Your task to perform on an android device: search for console tables on article.com Image 0: 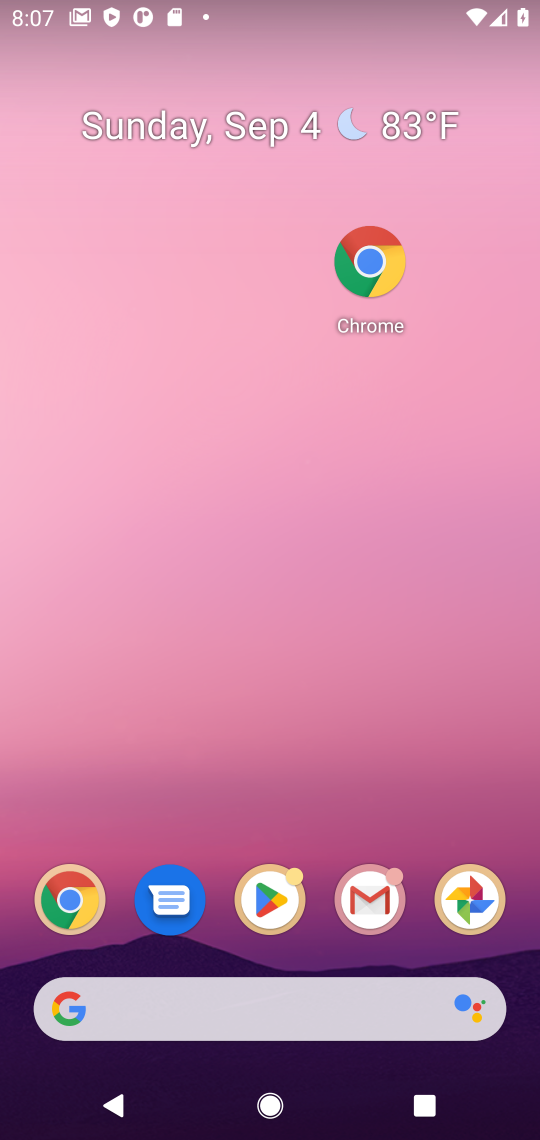
Step 0: drag from (264, 962) to (153, 216)
Your task to perform on an android device: search for console tables on article.com Image 1: 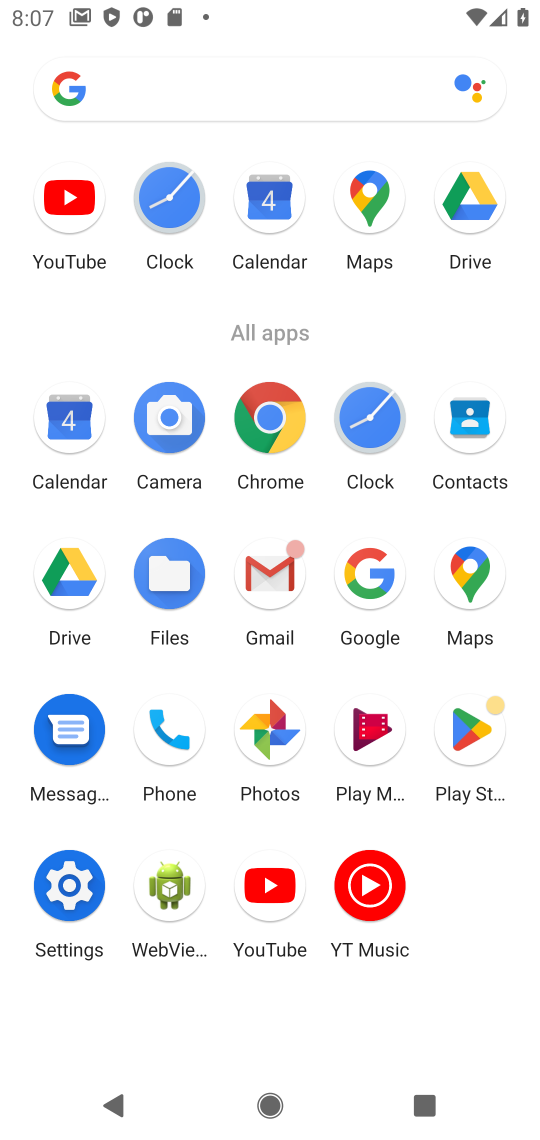
Step 1: click (275, 390)
Your task to perform on an android device: search for console tables on article.com Image 2: 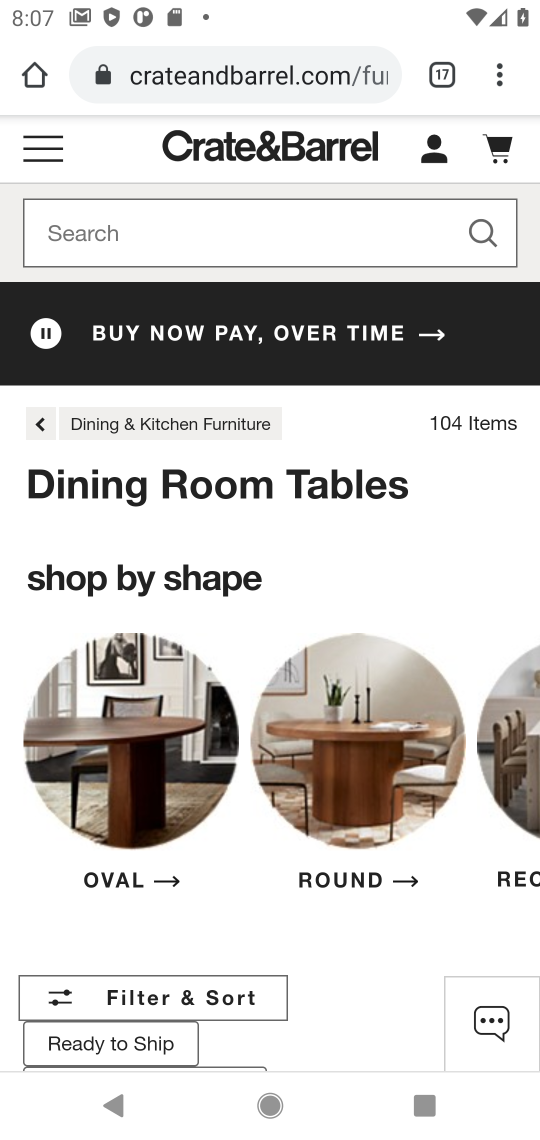
Step 2: click (432, 68)
Your task to perform on an android device: search for console tables on article.com Image 3: 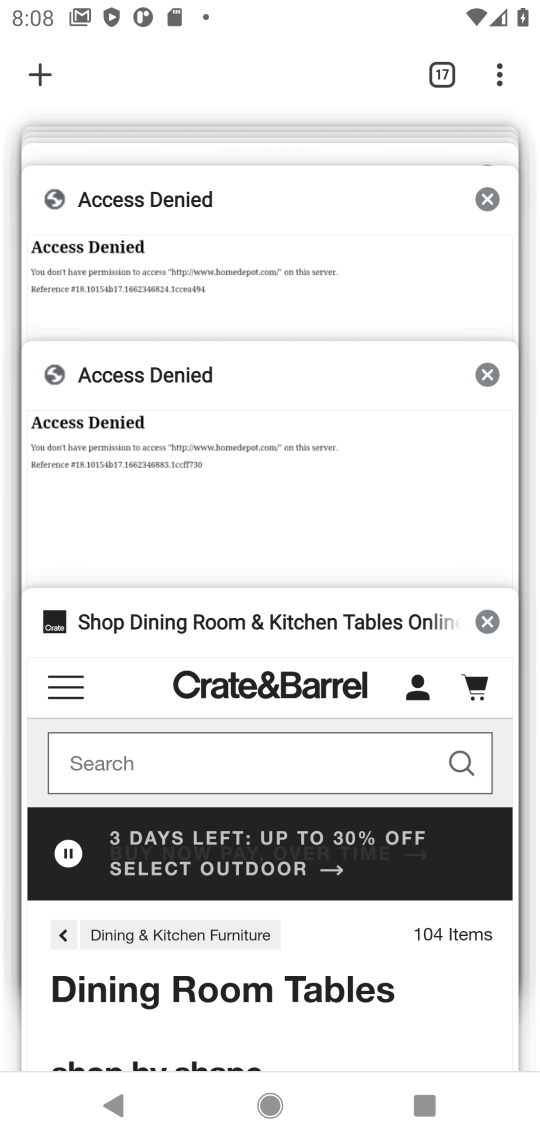
Step 3: click (36, 84)
Your task to perform on an android device: search for console tables on article.com Image 4: 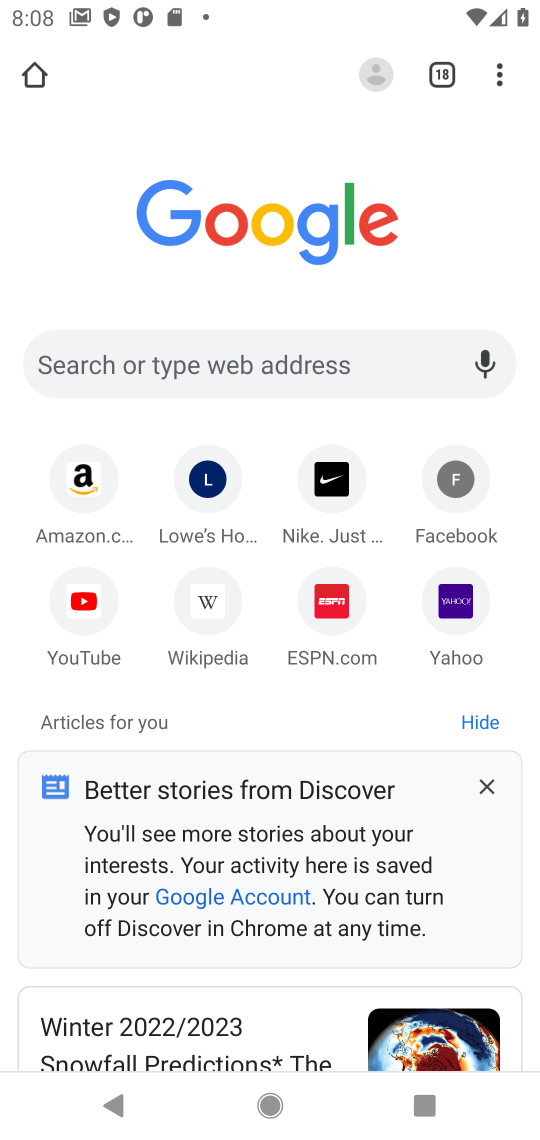
Step 4: click (191, 377)
Your task to perform on an android device: search for console tables on article.com Image 5: 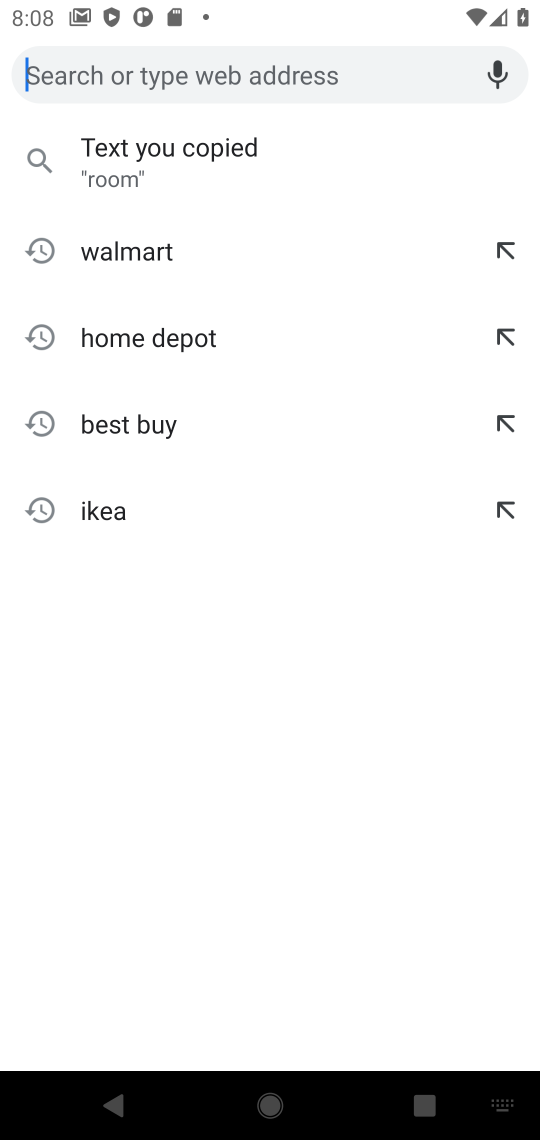
Step 5: type "article.com"
Your task to perform on an android device: search for console tables on article.com Image 6: 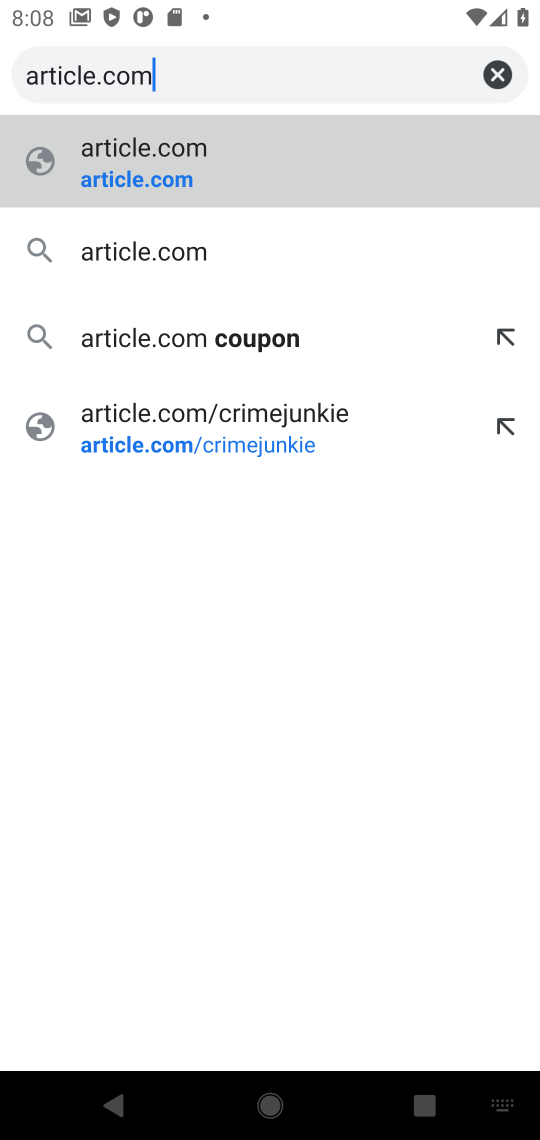
Step 6: click (134, 194)
Your task to perform on an android device: search for console tables on article.com Image 7: 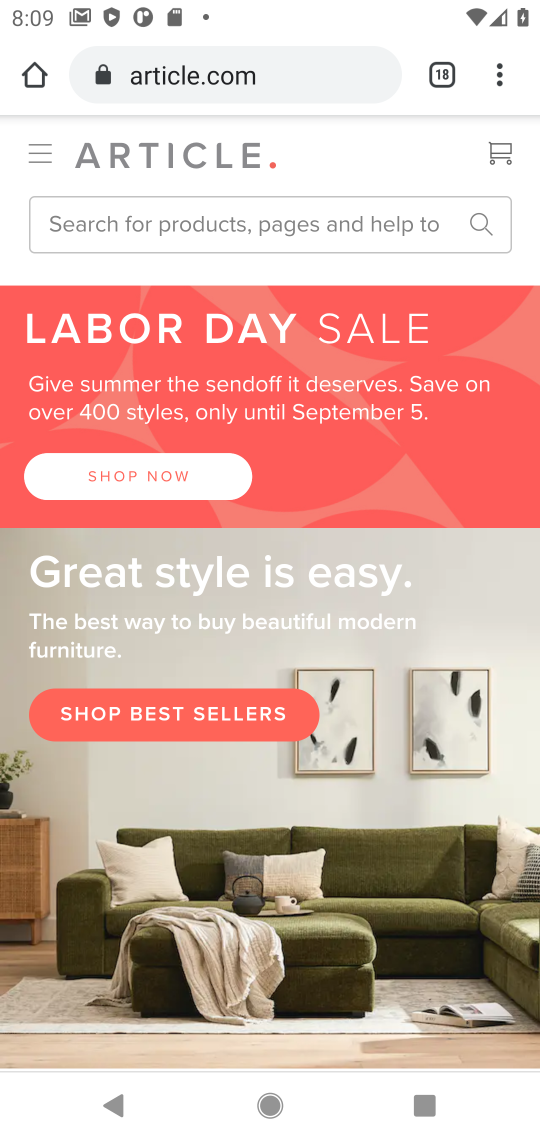
Step 7: click (147, 206)
Your task to perform on an android device: search for console tables on article.com Image 8: 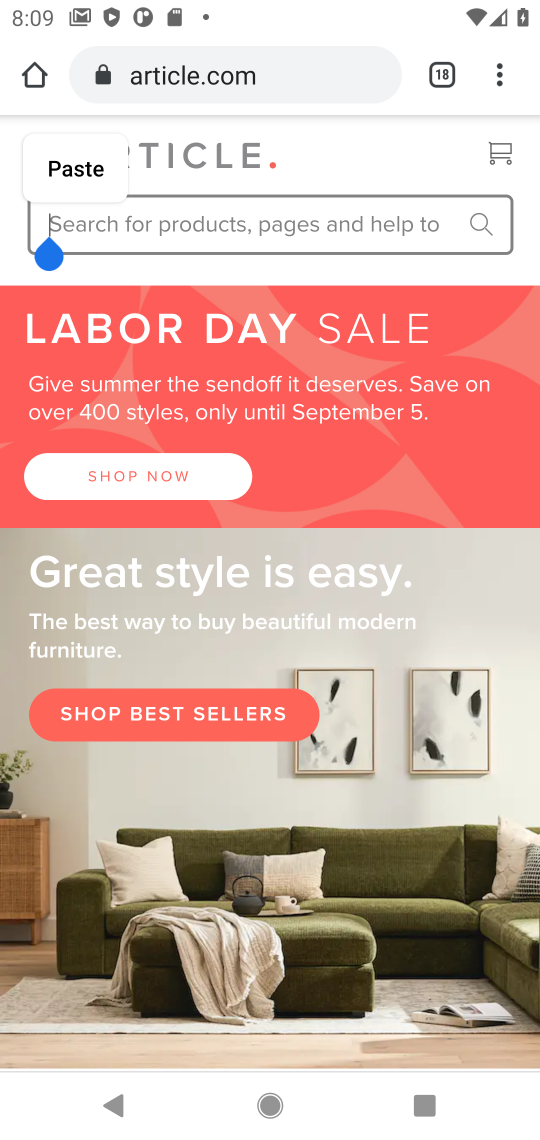
Step 8: type "console tables"
Your task to perform on an android device: search for console tables on article.com Image 9: 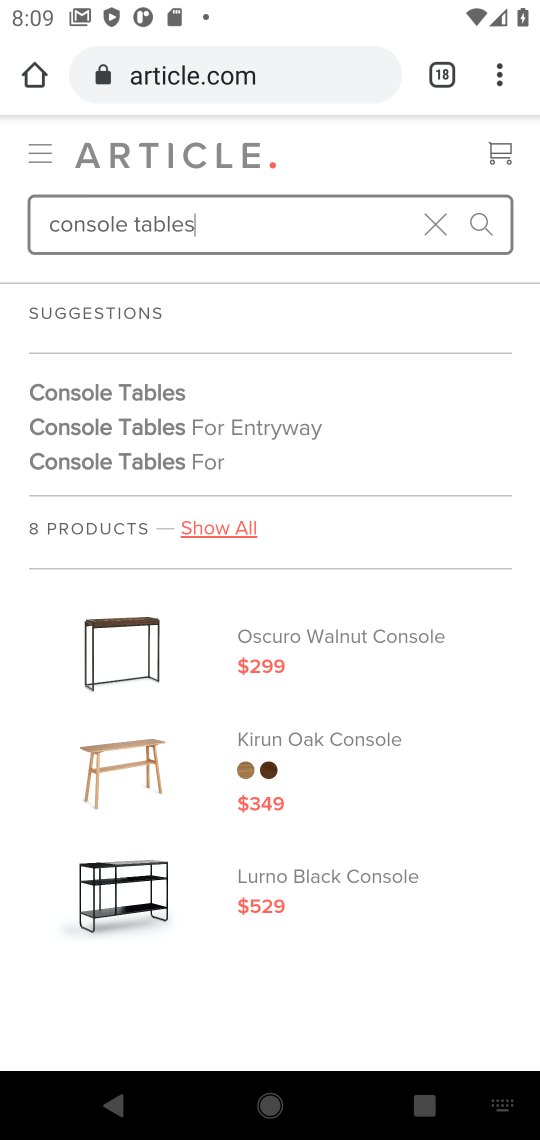
Step 9: click (475, 222)
Your task to perform on an android device: search for console tables on article.com Image 10: 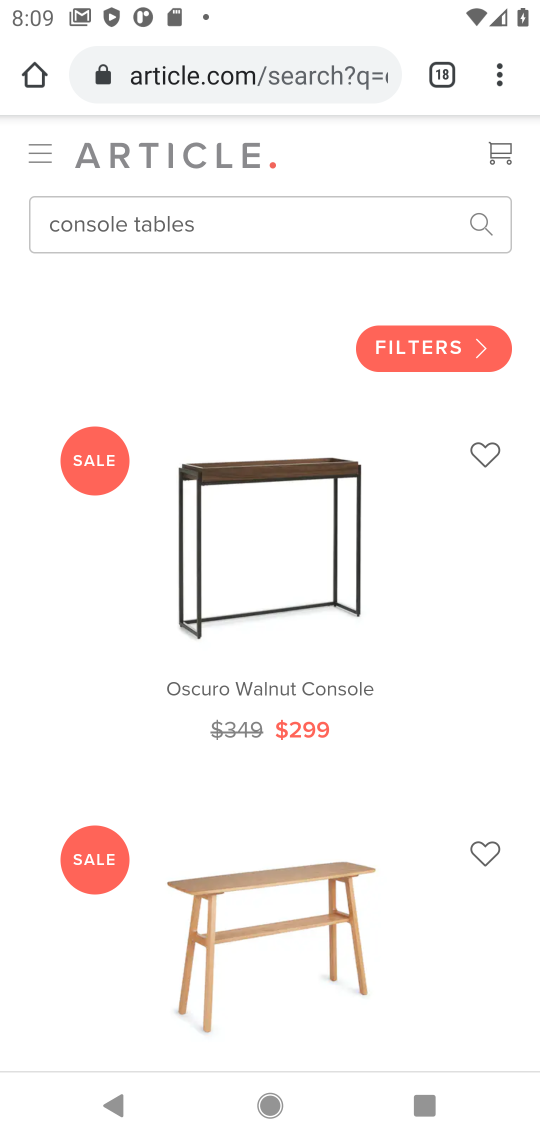
Step 10: task complete